Your task to perform on an android device: turn pop-ups off in chrome Image 0: 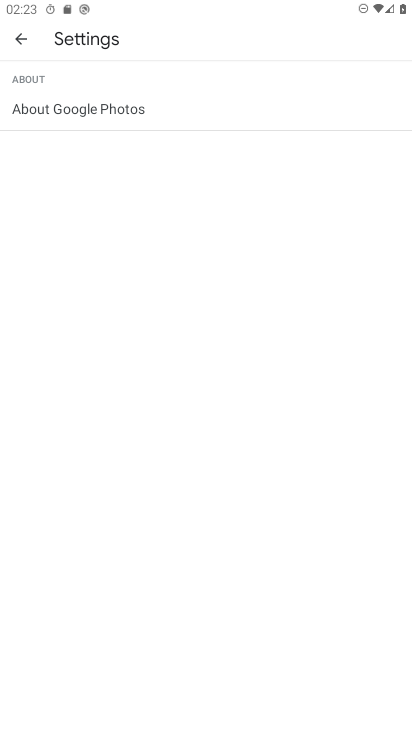
Step 0: press home button
Your task to perform on an android device: turn pop-ups off in chrome Image 1: 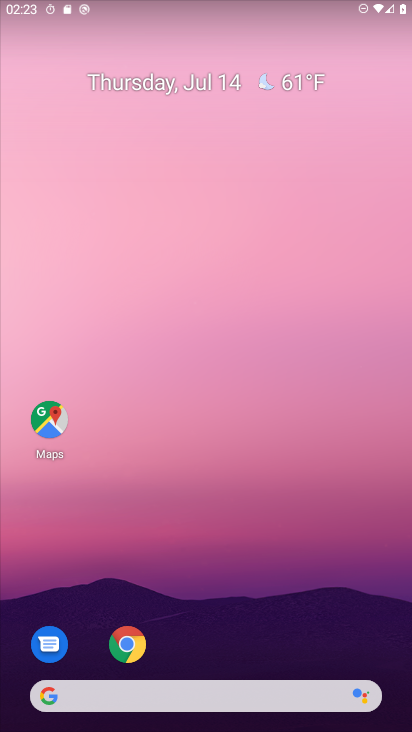
Step 1: drag from (326, 615) to (258, 134)
Your task to perform on an android device: turn pop-ups off in chrome Image 2: 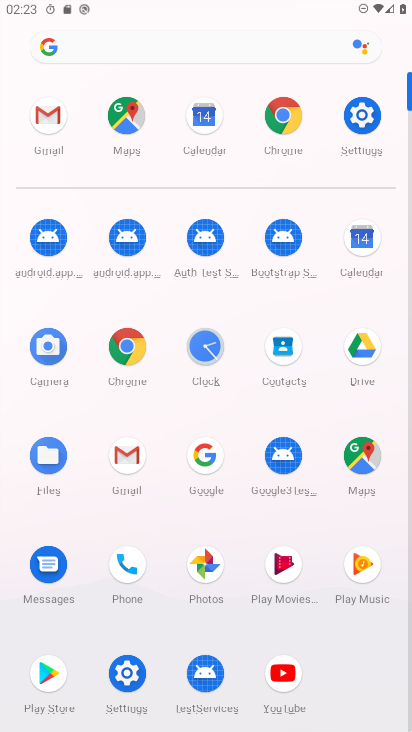
Step 2: click (279, 116)
Your task to perform on an android device: turn pop-ups off in chrome Image 3: 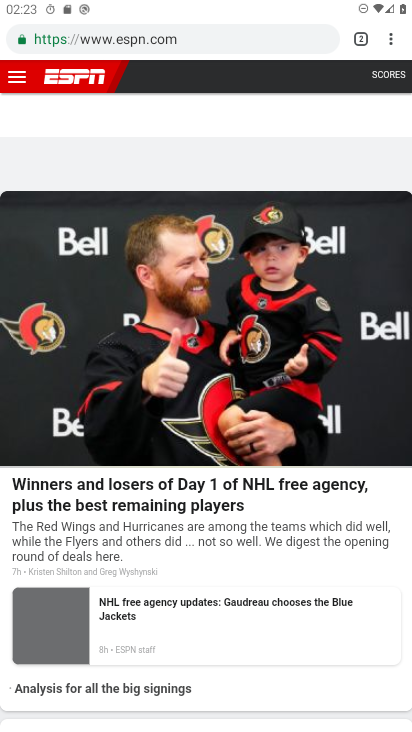
Step 3: drag from (394, 34) to (276, 476)
Your task to perform on an android device: turn pop-ups off in chrome Image 4: 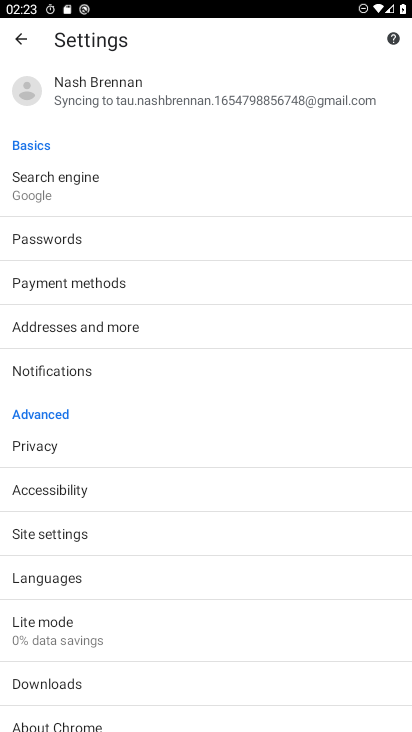
Step 4: click (17, 531)
Your task to perform on an android device: turn pop-ups off in chrome Image 5: 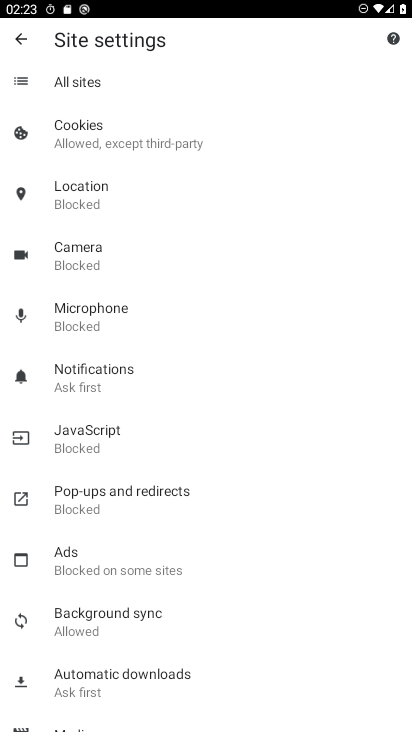
Step 5: click (116, 504)
Your task to perform on an android device: turn pop-ups off in chrome Image 6: 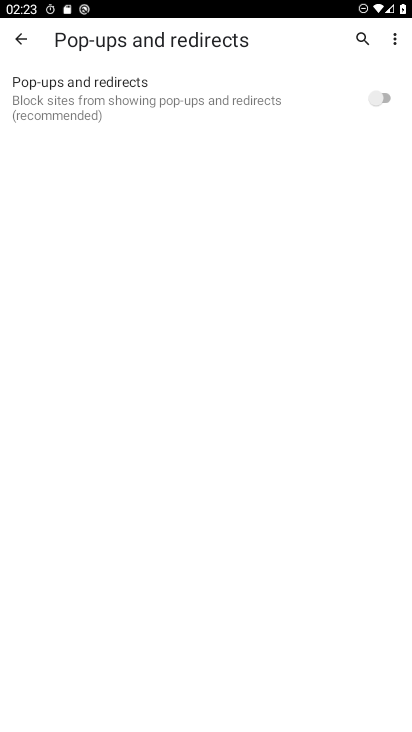
Step 6: task complete